Your task to perform on an android device: Open Reddit.com Image 0: 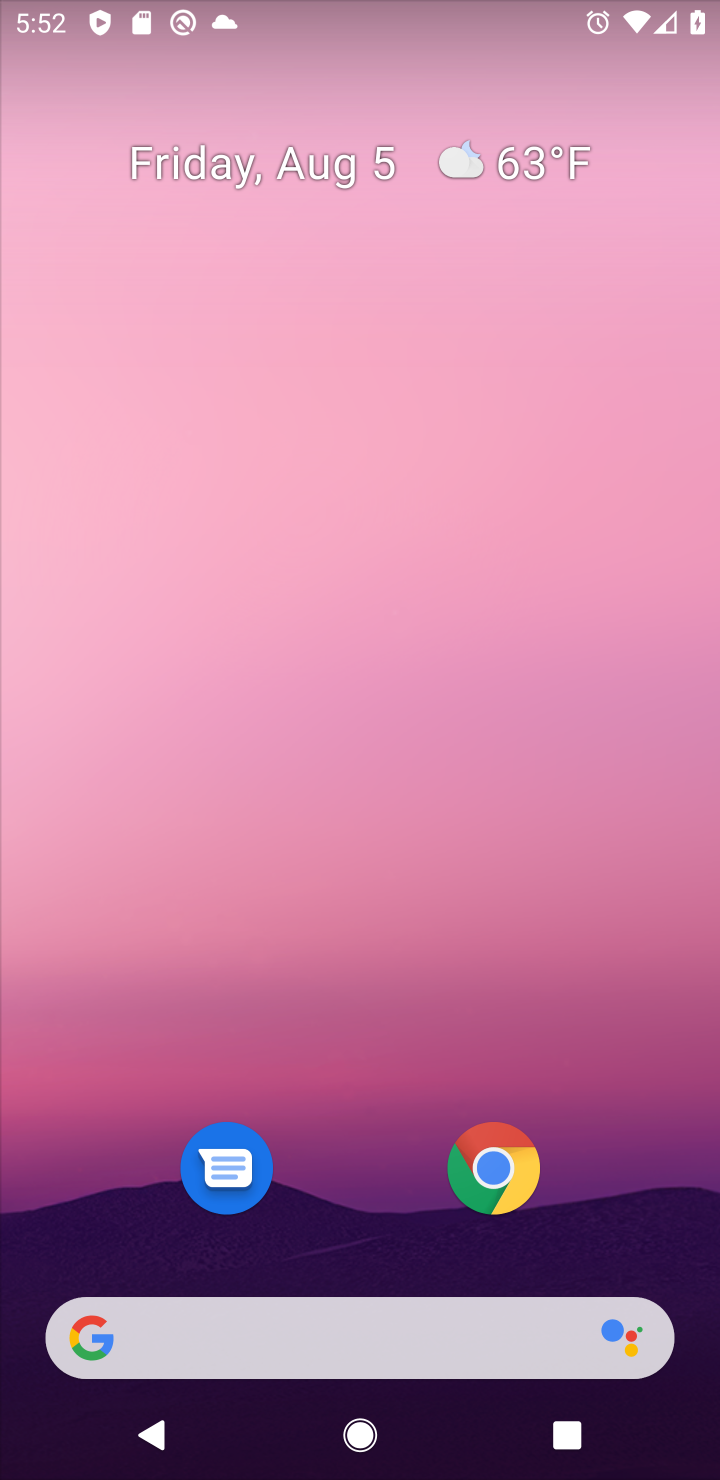
Step 0: press home button
Your task to perform on an android device: Open Reddit.com Image 1: 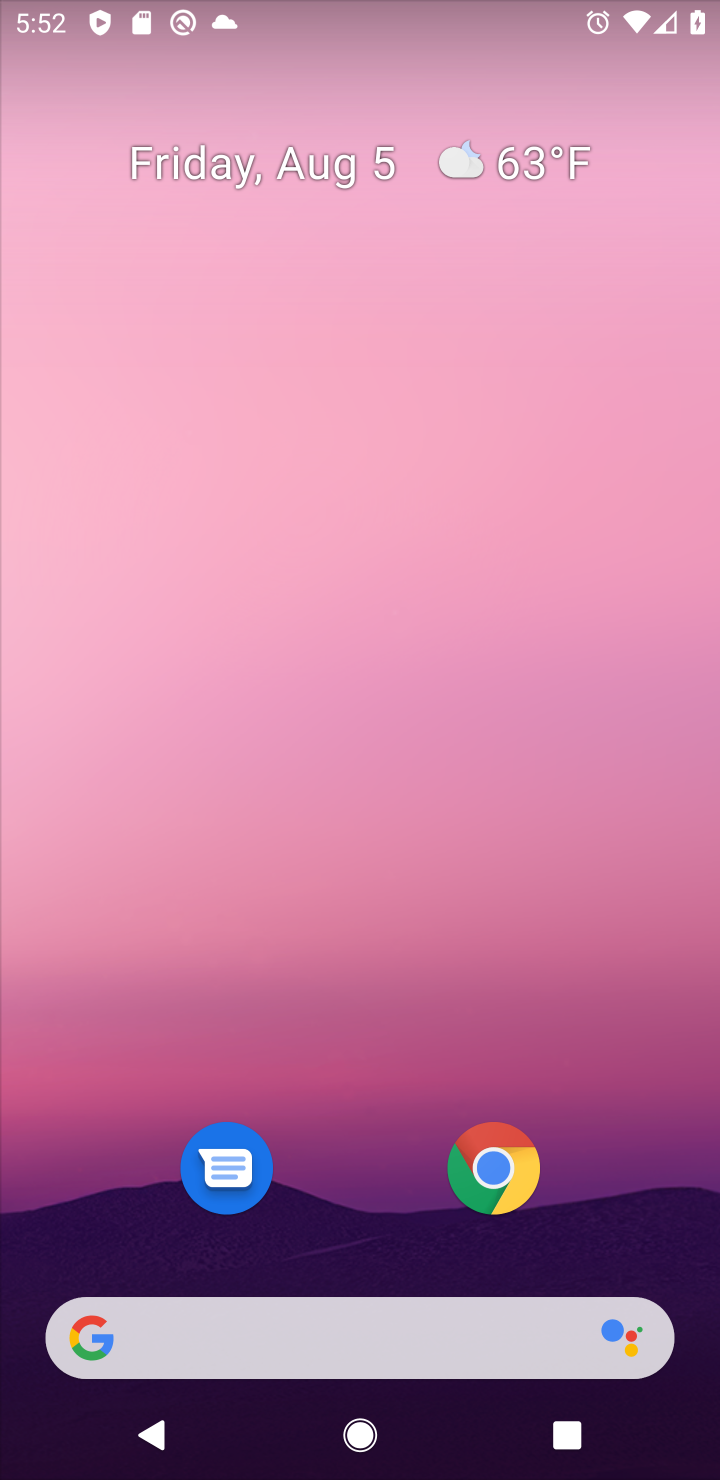
Step 1: click (94, 1338)
Your task to perform on an android device: Open Reddit.com Image 2: 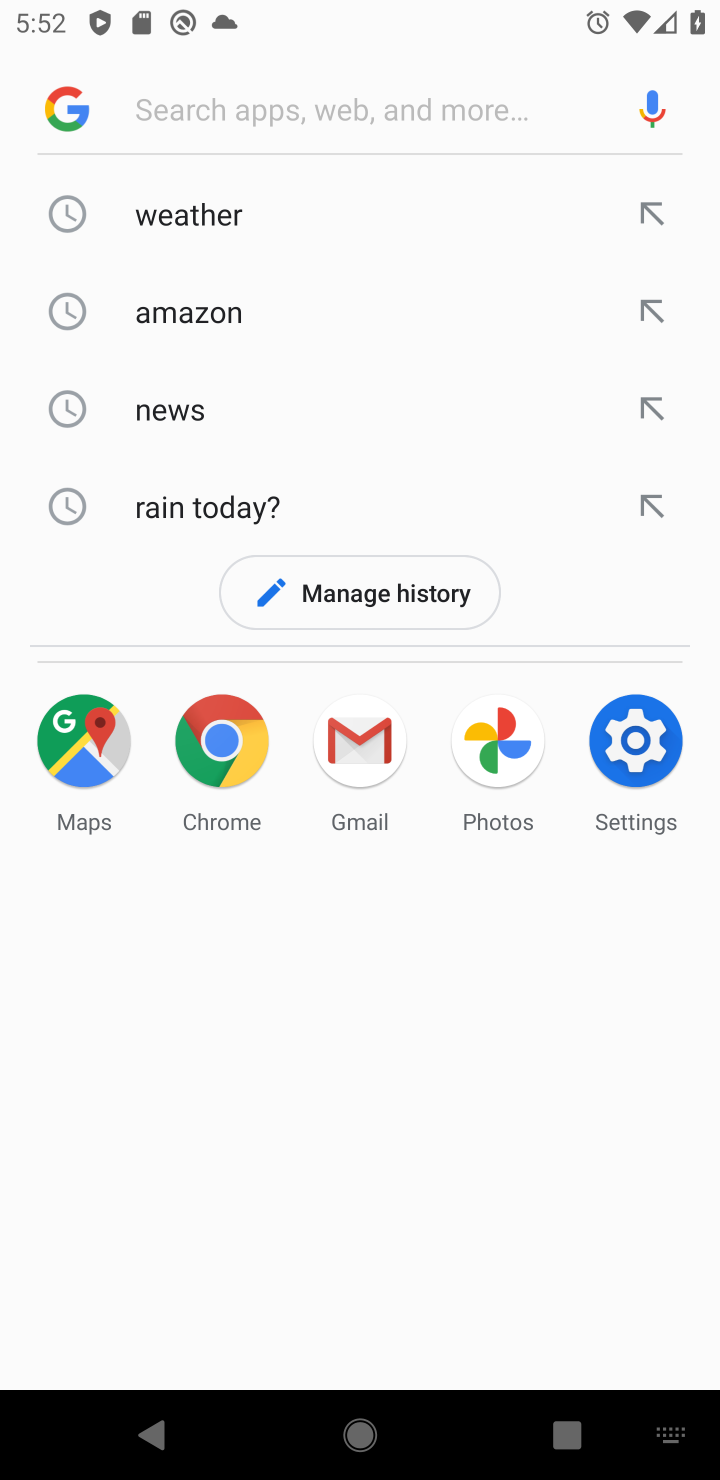
Step 2: type " Reddit.com"
Your task to perform on an android device: Open Reddit.com Image 3: 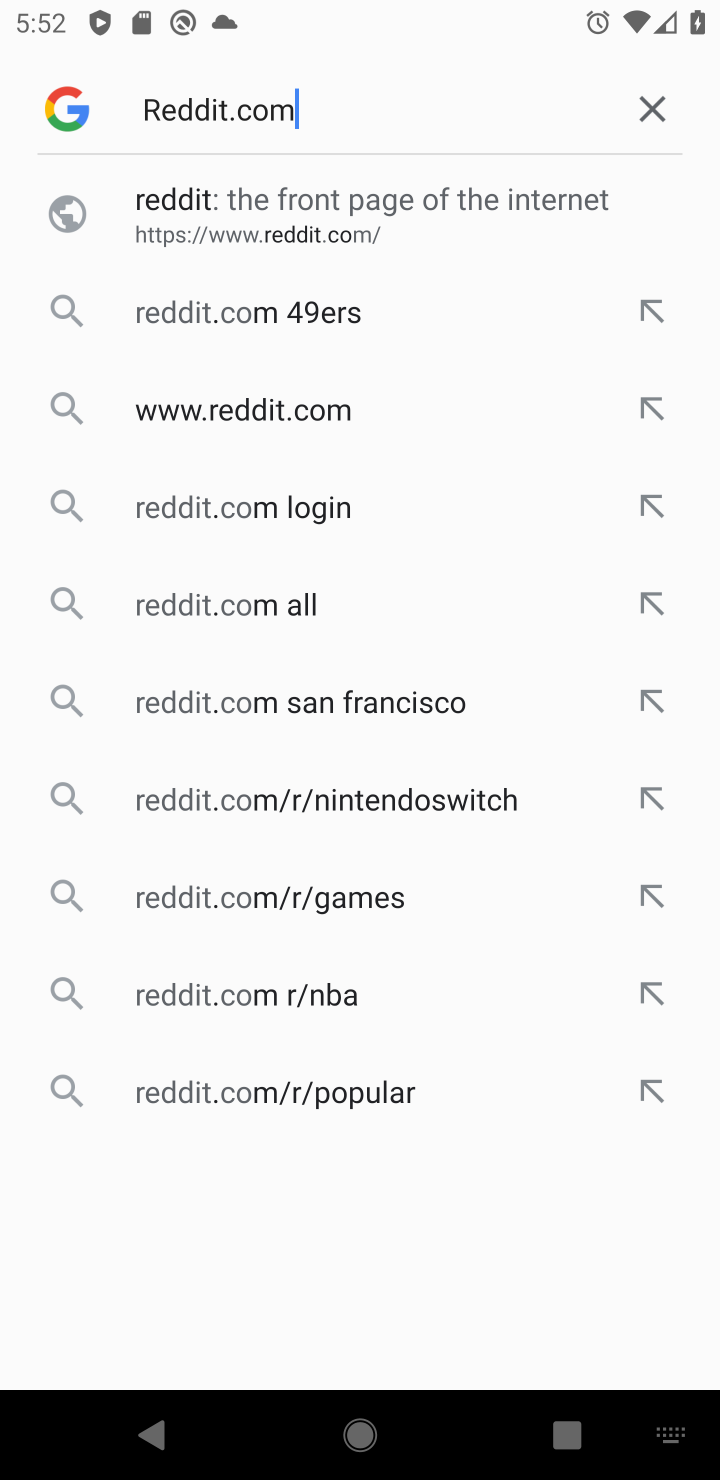
Step 3: press enter
Your task to perform on an android device: Open Reddit.com Image 4: 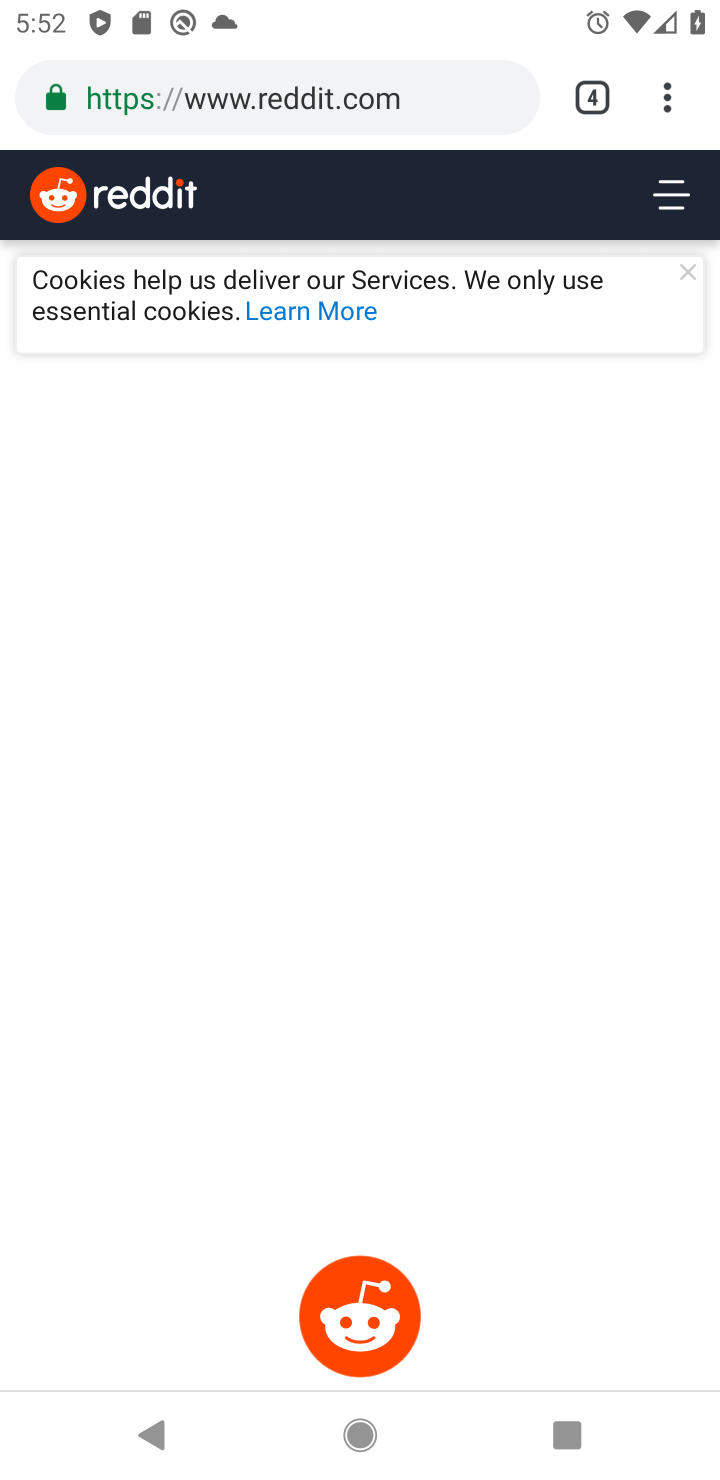
Step 4: task complete